Your task to perform on an android device: clear history in the chrome app Image 0: 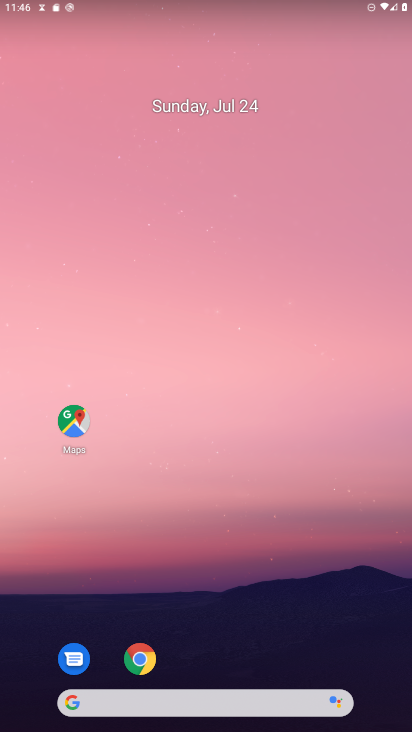
Step 0: drag from (281, 672) to (220, 205)
Your task to perform on an android device: clear history in the chrome app Image 1: 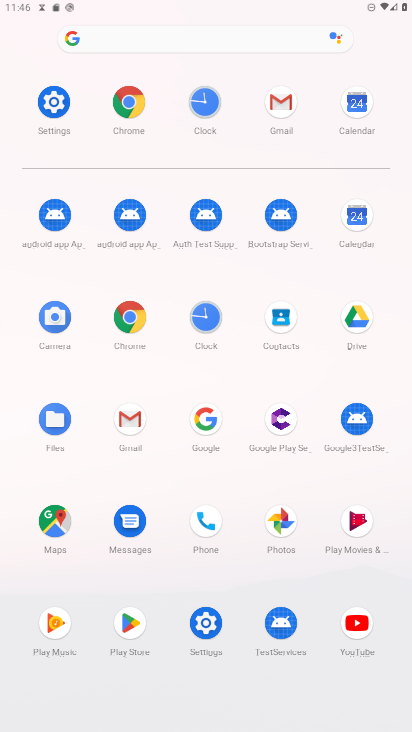
Step 1: click (123, 183)
Your task to perform on an android device: clear history in the chrome app Image 2: 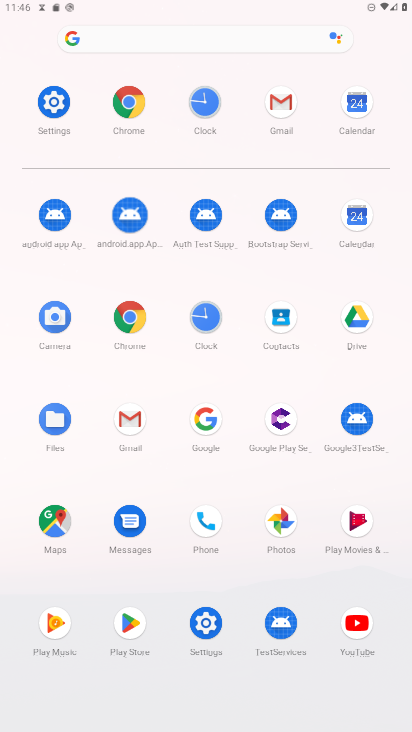
Step 2: click (138, 96)
Your task to perform on an android device: clear history in the chrome app Image 3: 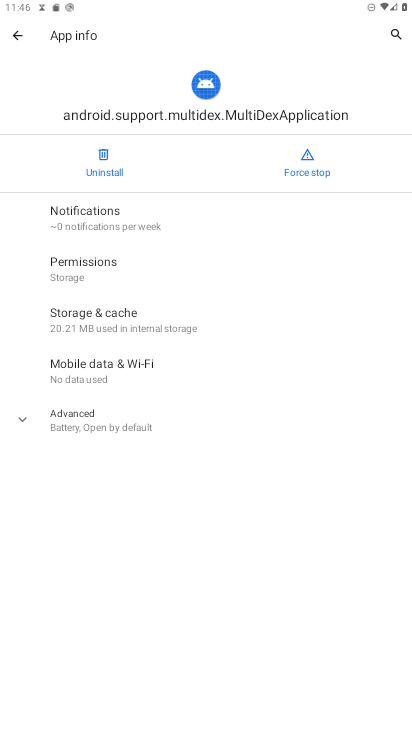
Step 3: click (12, 45)
Your task to perform on an android device: clear history in the chrome app Image 4: 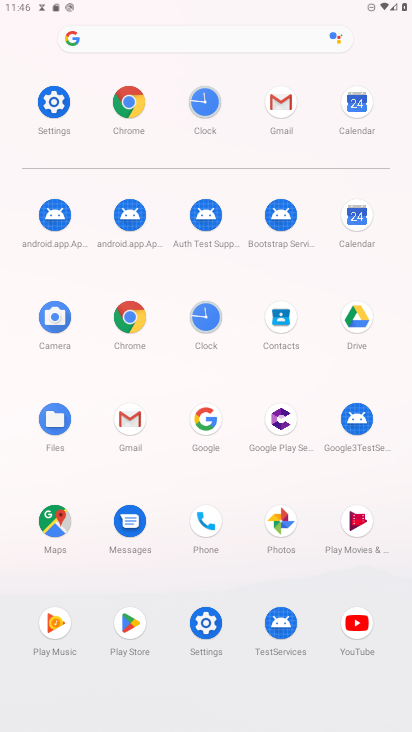
Step 4: click (133, 92)
Your task to perform on an android device: clear history in the chrome app Image 5: 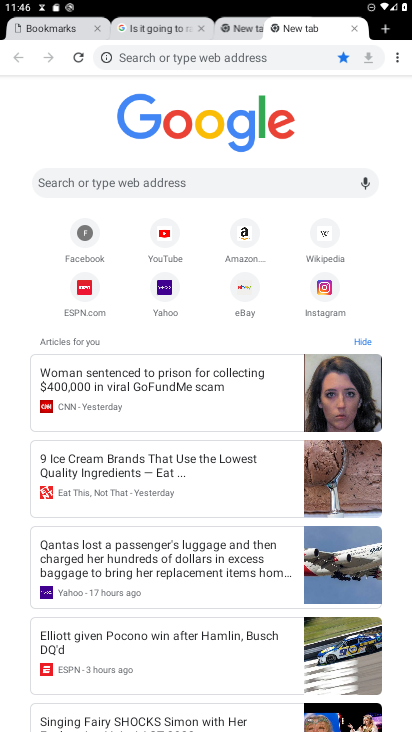
Step 5: click (408, 43)
Your task to perform on an android device: clear history in the chrome app Image 6: 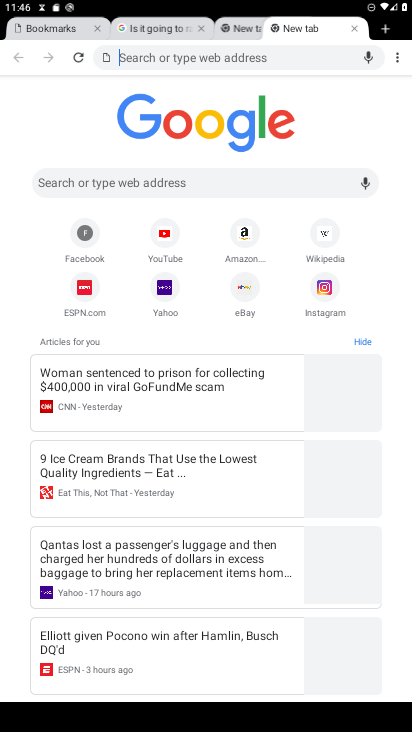
Step 6: click (408, 43)
Your task to perform on an android device: clear history in the chrome app Image 7: 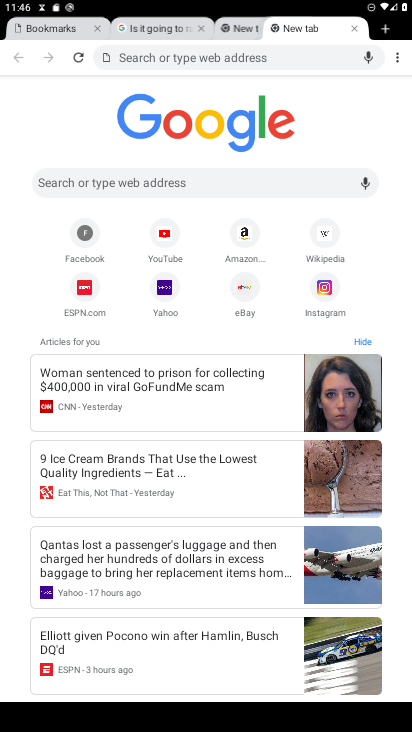
Step 7: click (392, 60)
Your task to perform on an android device: clear history in the chrome app Image 8: 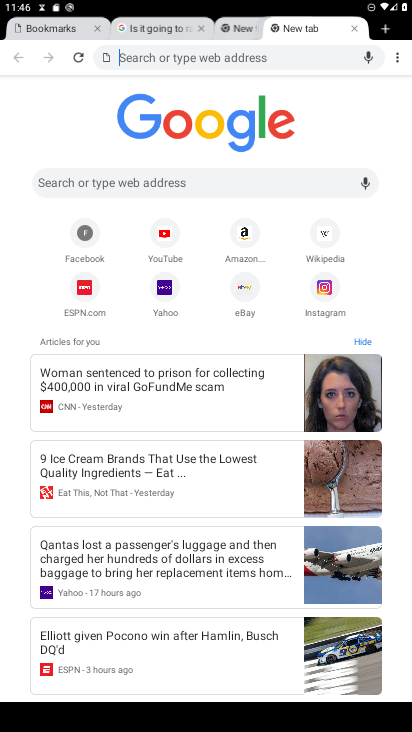
Step 8: click (392, 60)
Your task to perform on an android device: clear history in the chrome app Image 9: 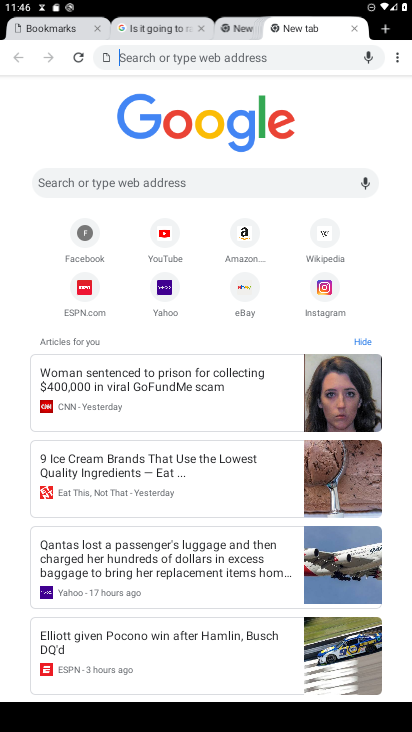
Step 9: click (397, 62)
Your task to perform on an android device: clear history in the chrome app Image 10: 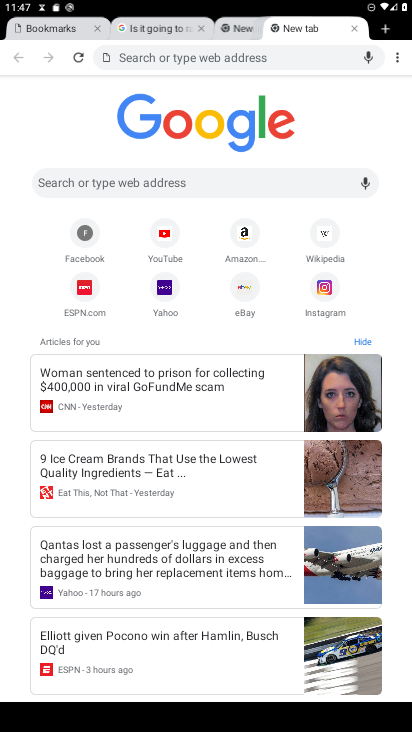
Step 10: click (397, 62)
Your task to perform on an android device: clear history in the chrome app Image 11: 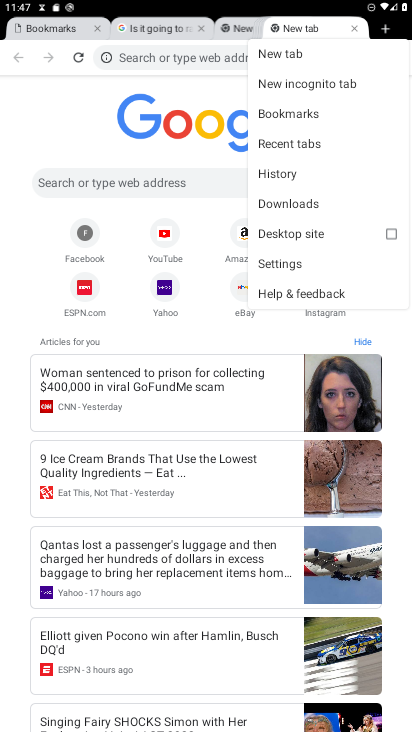
Step 11: click (306, 171)
Your task to perform on an android device: clear history in the chrome app Image 12: 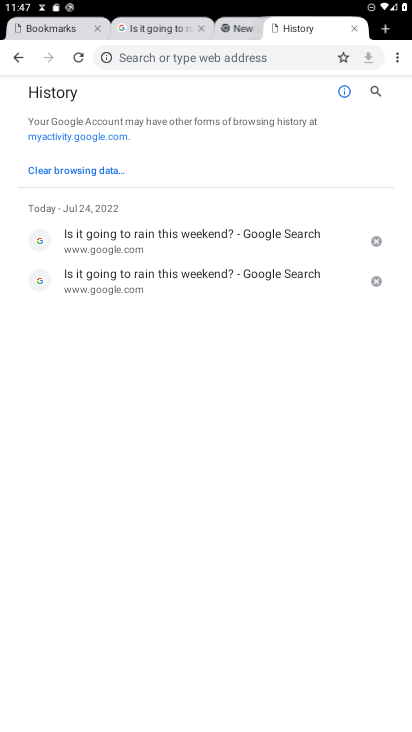
Step 12: click (99, 167)
Your task to perform on an android device: clear history in the chrome app Image 13: 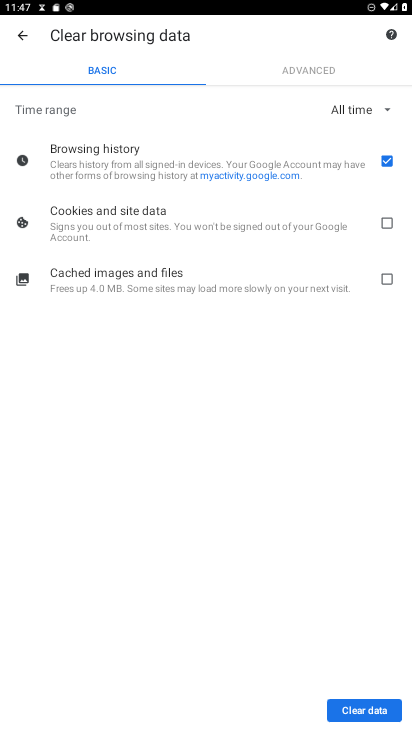
Step 13: click (355, 710)
Your task to perform on an android device: clear history in the chrome app Image 14: 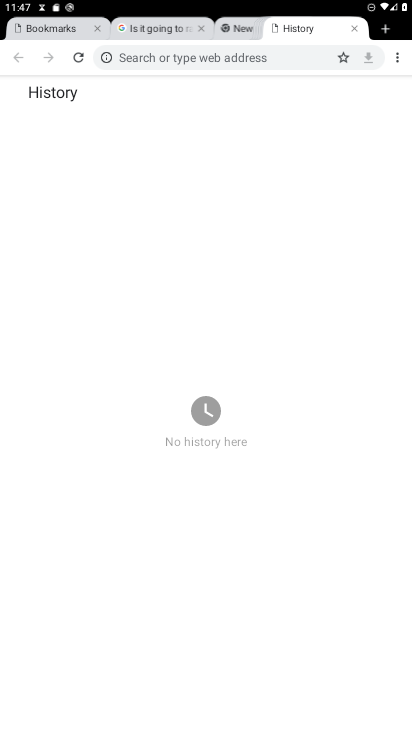
Step 14: task complete